Your task to perform on an android device: check battery use Image 0: 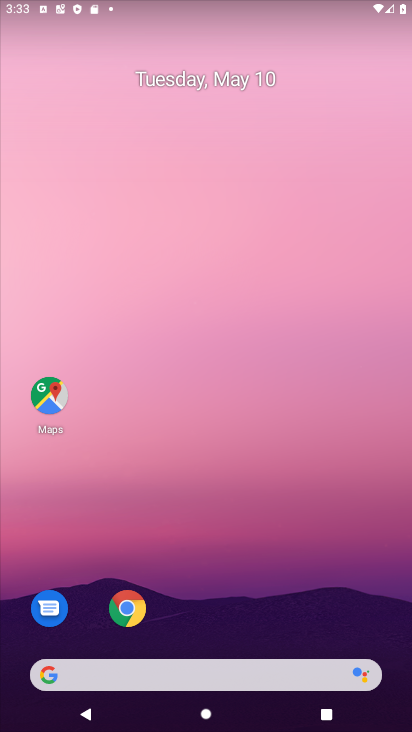
Step 0: drag from (378, 630) to (268, 13)
Your task to perform on an android device: check battery use Image 1: 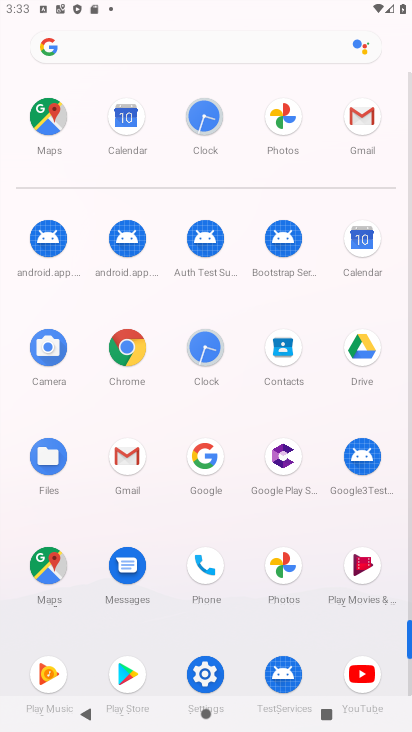
Step 1: click (206, 673)
Your task to perform on an android device: check battery use Image 2: 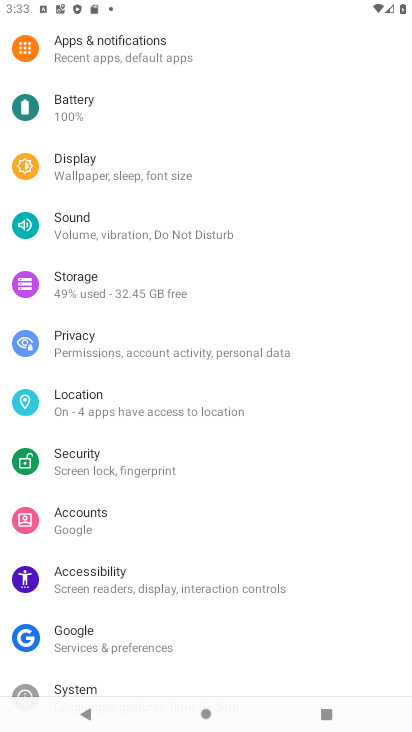
Step 2: click (64, 103)
Your task to perform on an android device: check battery use Image 3: 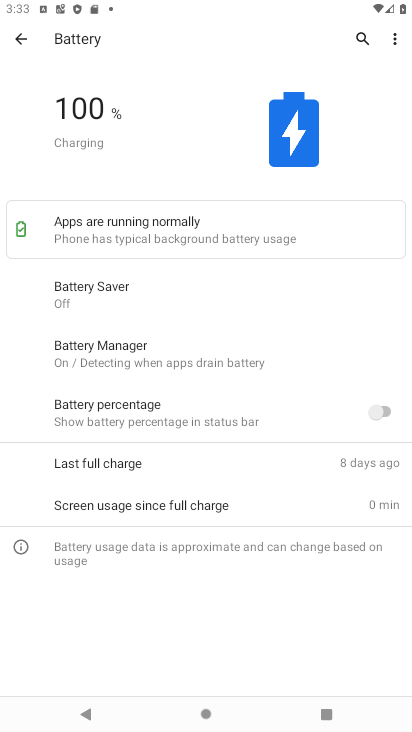
Step 3: click (393, 43)
Your task to perform on an android device: check battery use Image 4: 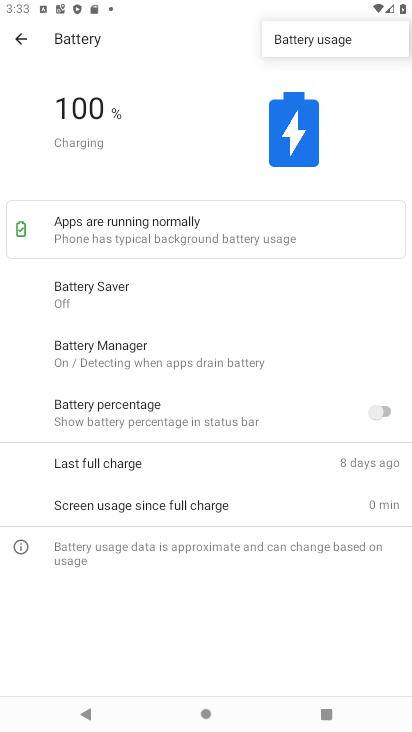
Step 4: click (315, 31)
Your task to perform on an android device: check battery use Image 5: 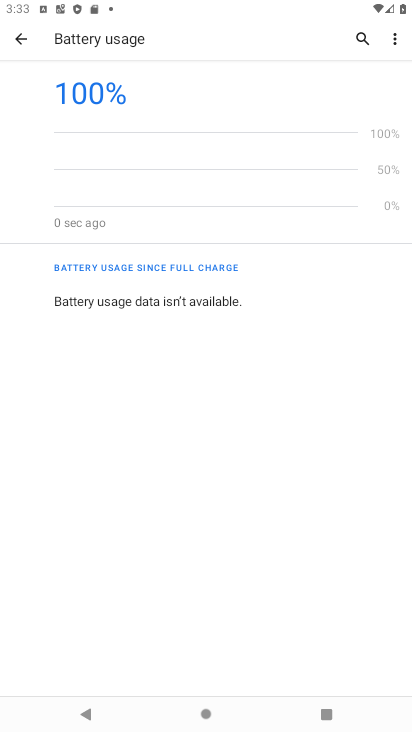
Step 5: task complete